Your task to perform on an android device: turn on the 24-hour format for clock Image 0: 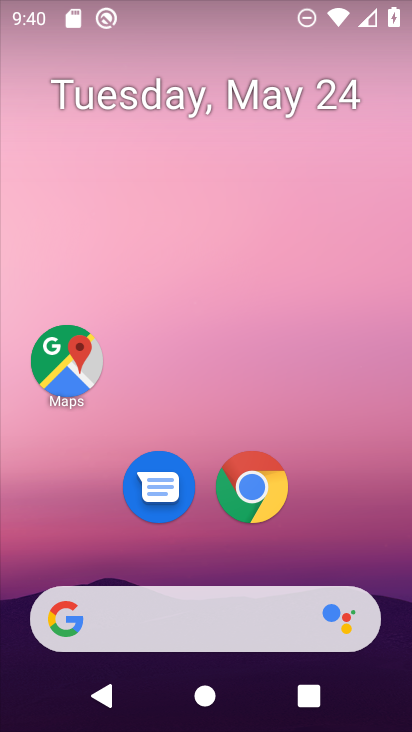
Step 0: press home button
Your task to perform on an android device: turn on the 24-hour format for clock Image 1: 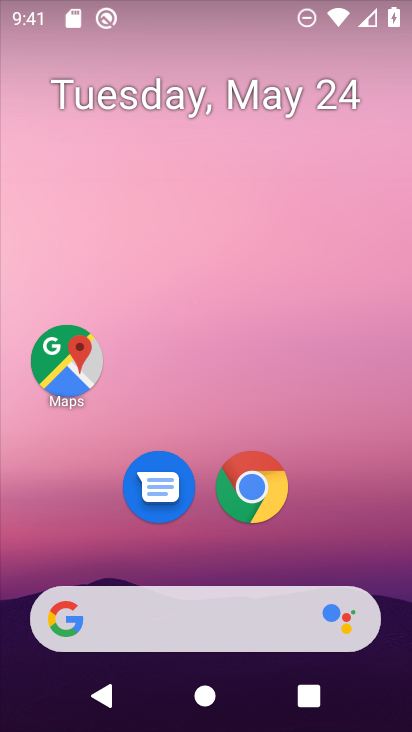
Step 1: drag from (256, 606) to (380, 136)
Your task to perform on an android device: turn on the 24-hour format for clock Image 2: 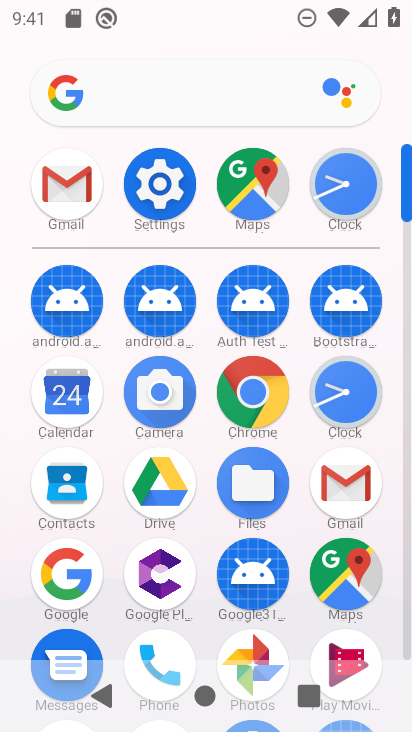
Step 2: click (338, 396)
Your task to perform on an android device: turn on the 24-hour format for clock Image 3: 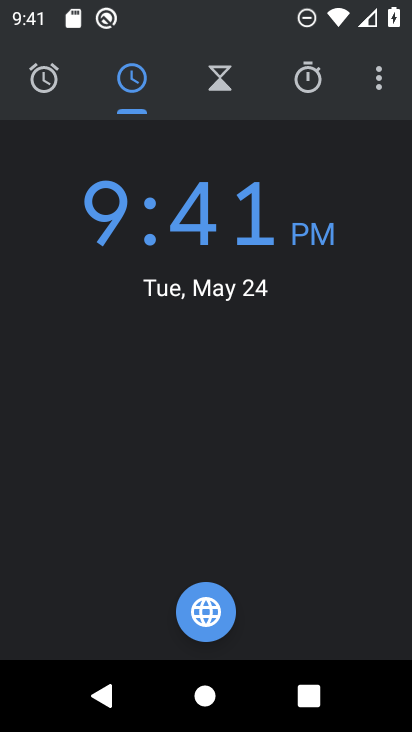
Step 3: click (388, 88)
Your task to perform on an android device: turn on the 24-hour format for clock Image 4: 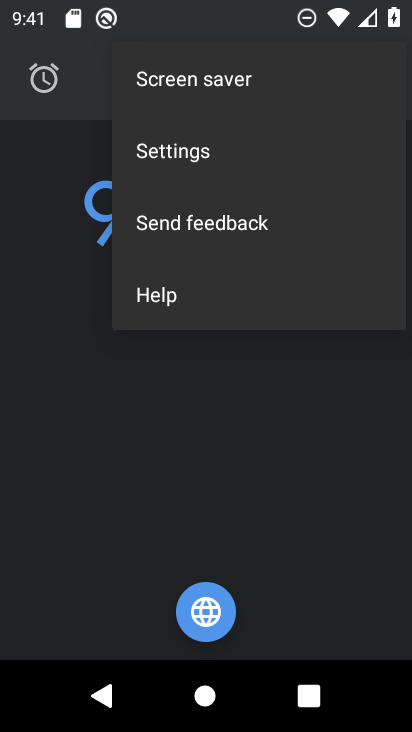
Step 4: click (209, 154)
Your task to perform on an android device: turn on the 24-hour format for clock Image 5: 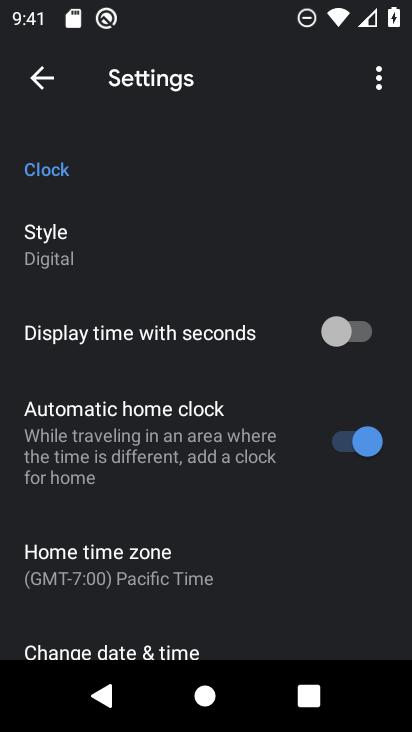
Step 5: drag from (232, 600) to (287, 321)
Your task to perform on an android device: turn on the 24-hour format for clock Image 6: 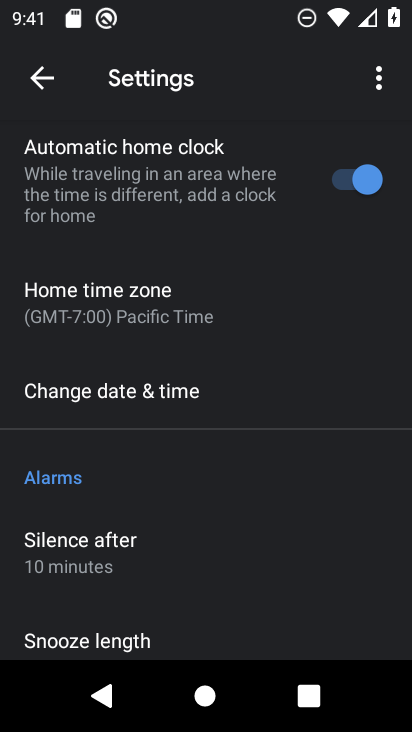
Step 6: click (166, 387)
Your task to perform on an android device: turn on the 24-hour format for clock Image 7: 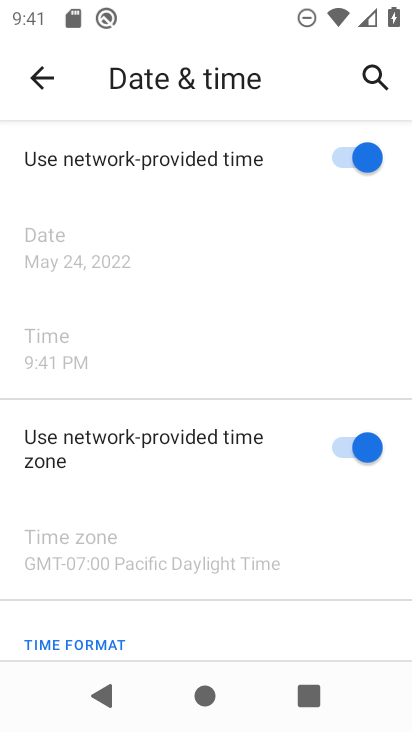
Step 7: drag from (226, 567) to (319, 115)
Your task to perform on an android device: turn on the 24-hour format for clock Image 8: 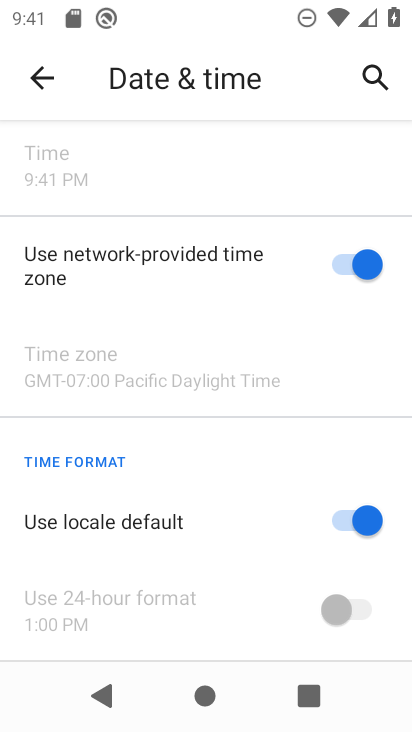
Step 8: click (337, 524)
Your task to perform on an android device: turn on the 24-hour format for clock Image 9: 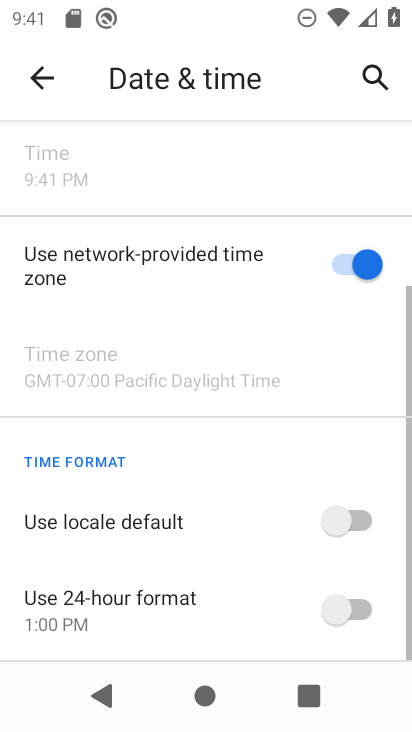
Step 9: click (358, 610)
Your task to perform on an android device: turn on the 24-hour format for clock Image 10: 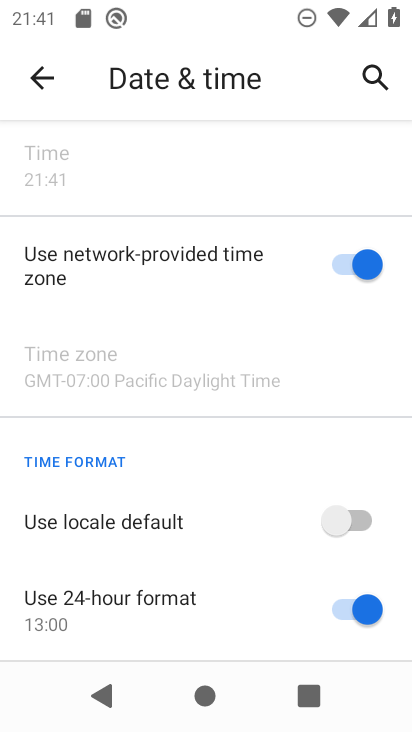
Step 10: task complete